Your task to perform on an android device: Open Google Maps Image 0: 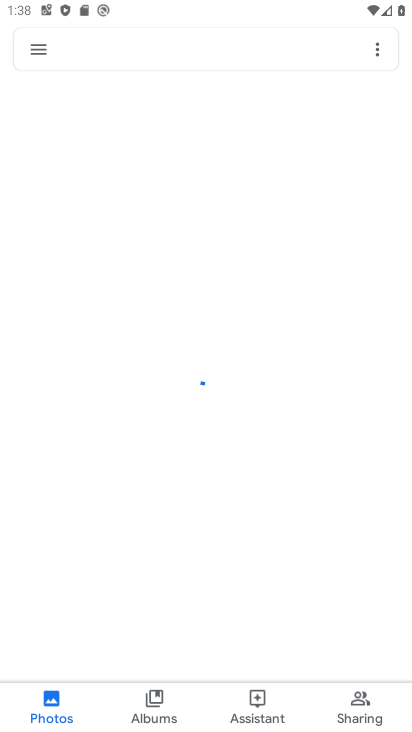
Step 0: press home button
Your task to perform on an android device: Open Google Maps Image 1: 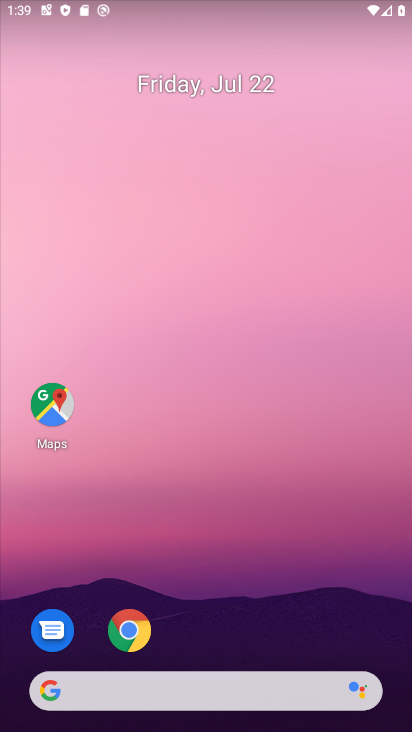
Step 1: click (47, 432)
Your task to perform on an android device: Open Google Maps Image 2: 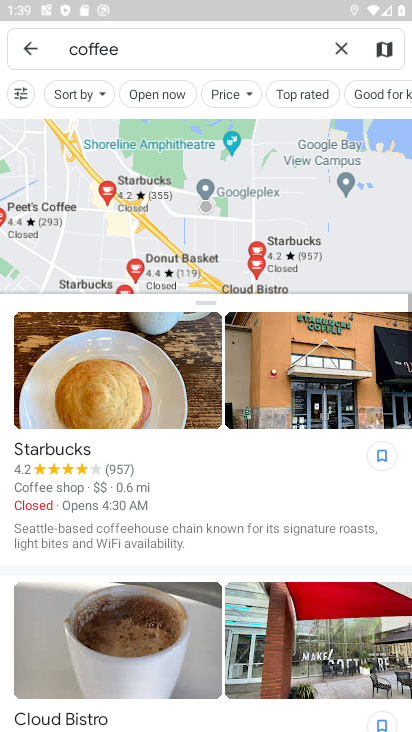
Step 2: task complete